Your task to perform on an android device: turn on bluetooth scan Image 0: 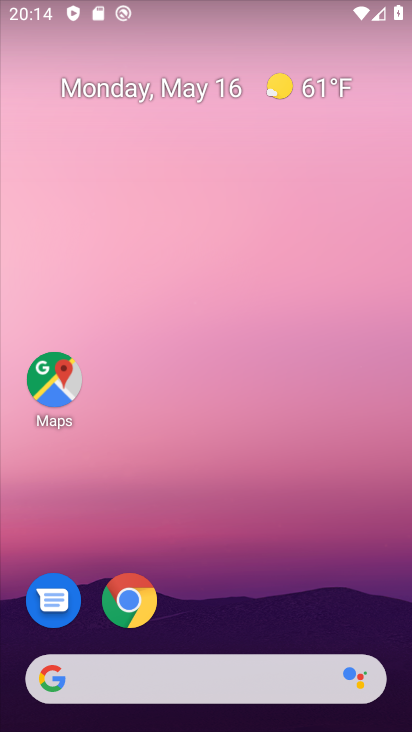
Step 0: drag from (201, 645) to (319, 142)
Your task to perform on an android device: turn on bluetooth scan Image 1: 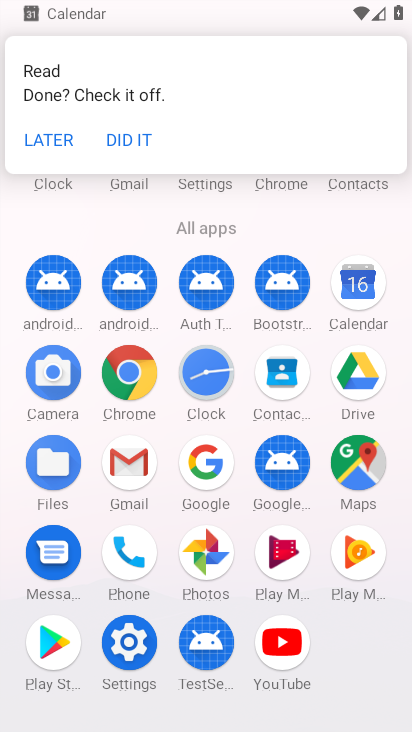
Step 1: click (124, 663)
Your task to perform on an android device: turn on bluetooth scan Image 2: 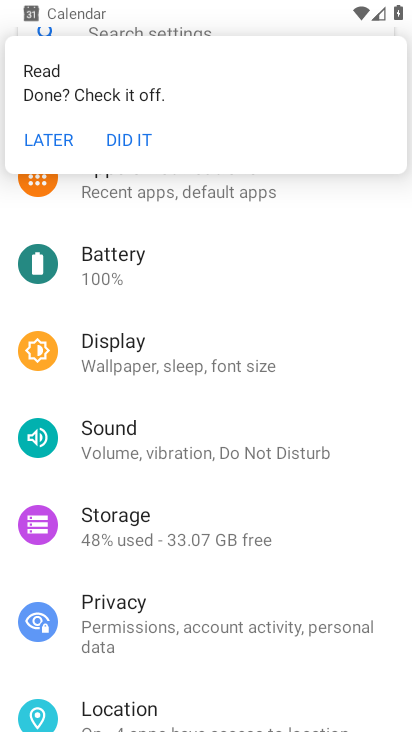
Step 2: click (54, 140)
Your task to perform on an android device: turn on bluetooth scan Image 3: 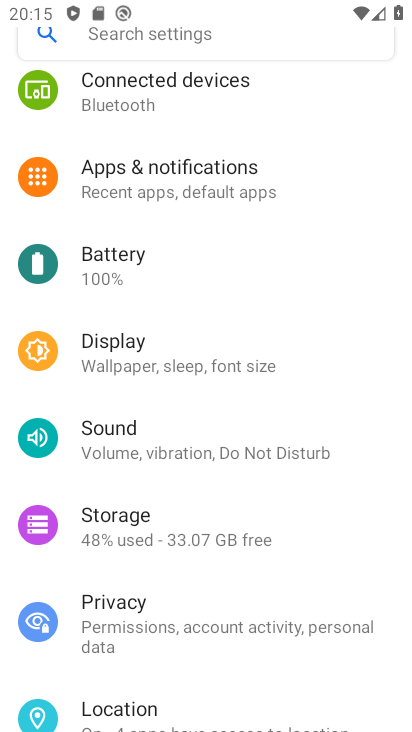
Step 3: drag from (223, 159) to (206, 516)
Your task to perform on an android device: turn on bluetooth scan Image 4: 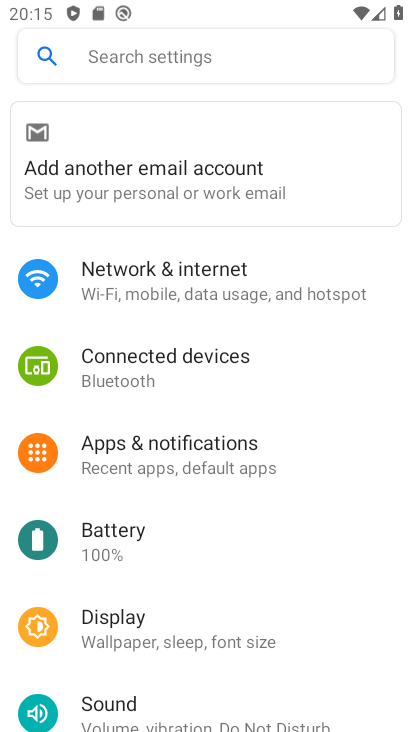
Step 4: click (219, 377)
Your task to perform on an android device: turn on bluetooth scan Image 5: 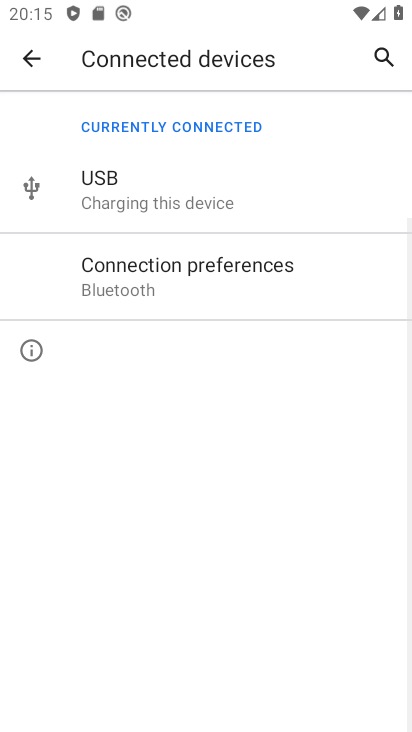
Step 5: click (213, 267)
Your task to perform on an android device: turn on bluetooth scan Image 6: 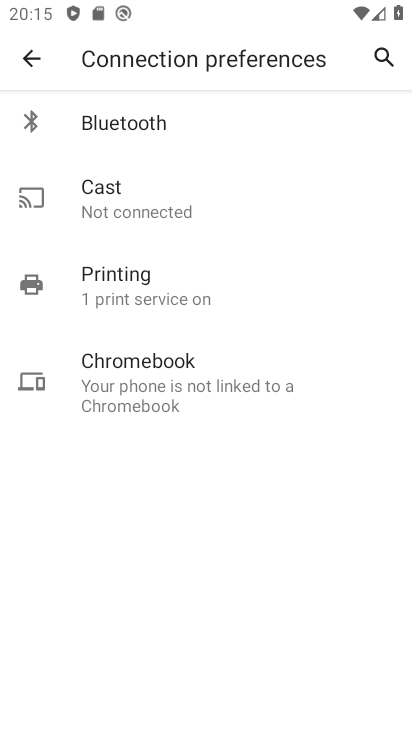
Step 6: click (208, 199)
Your task to perform on an android device: turn on bluetooth scan Image 7: 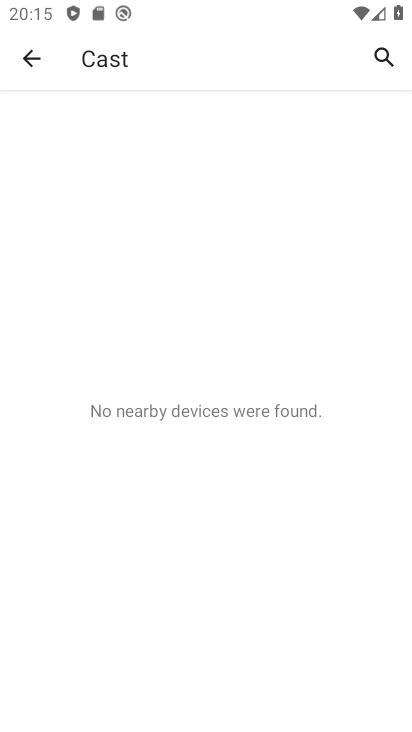
Step 7: task complete